Your task to perform on an android device: Go to Google Image 0: 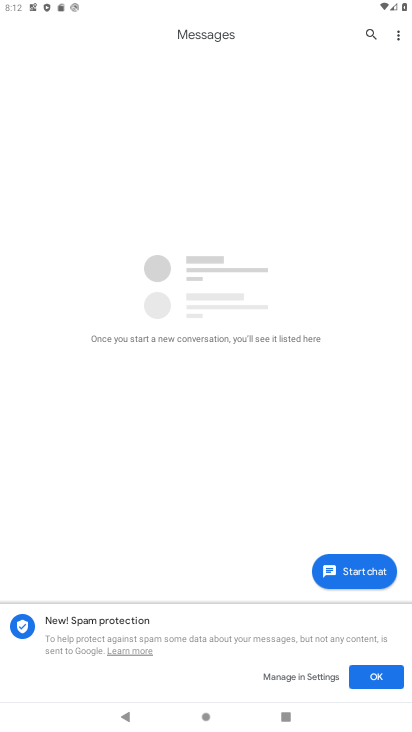
Step 0: press home button
Your task to perform on an android device: Go to Google Image 1: 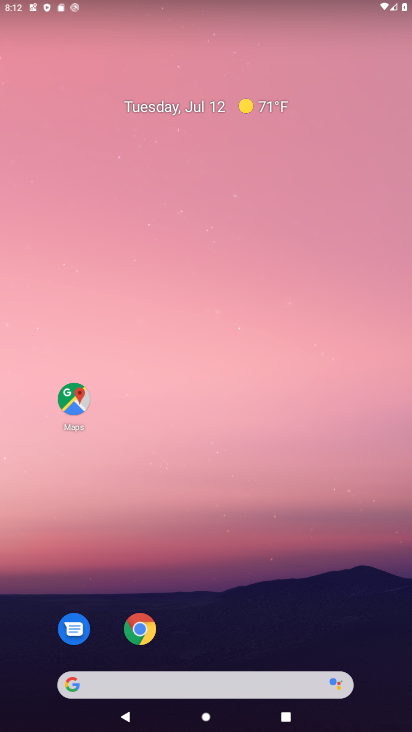
Step 1: drag from (388, 712) to (346, 108)
Your task to perform on an android device: Go to Google Image 2: 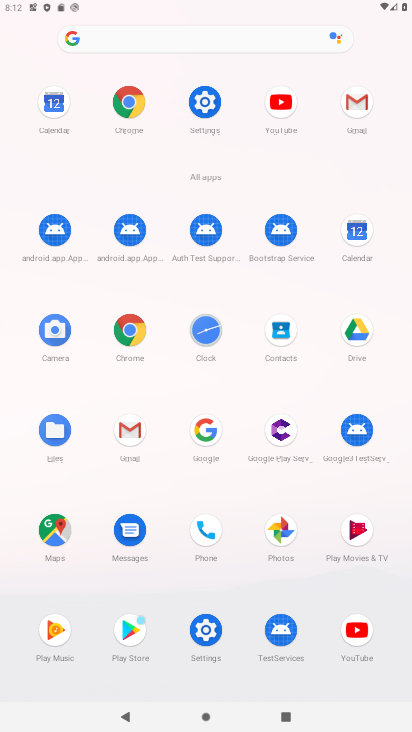
Step 2: click (207, 438)
Your task to perform on an android device: Go to Google Image 3: 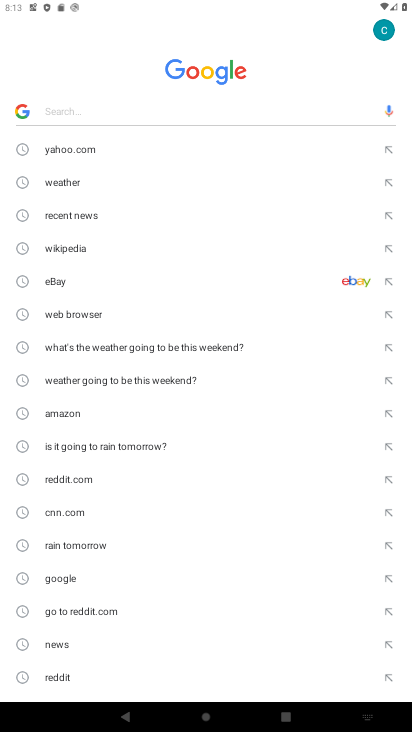
Step 3: task complete